Your task to perform on an android device: read, delete, or share a saved page in the chrome app Image 0: 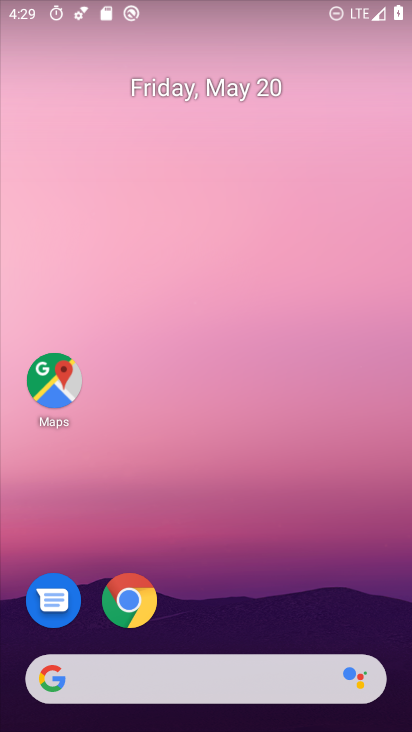
Step 0: click (129, 596)
Your task to perform on an android device: read, delete, or share a saved page in the chrome app Image 1: 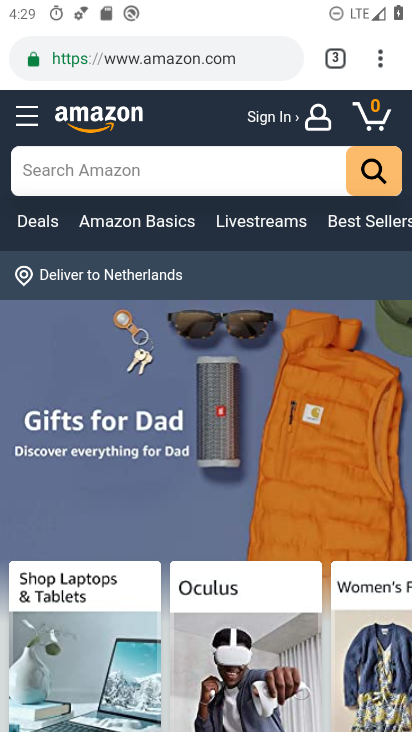
Step 1: drag from (380, 59) to (186, 385)
Your task to perform on an android device: read, delete, or share a saved page in the chrome app Image 2: 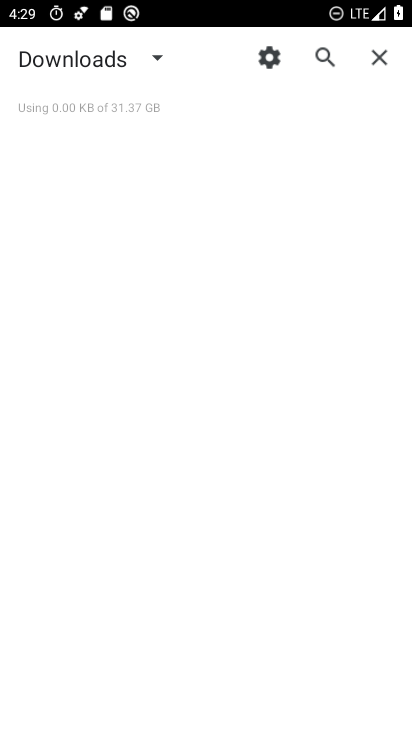
Step 2: click (146, 53)
Your task to perform on an android device: read, delete, or share a saved page in the chrome app Image 3: 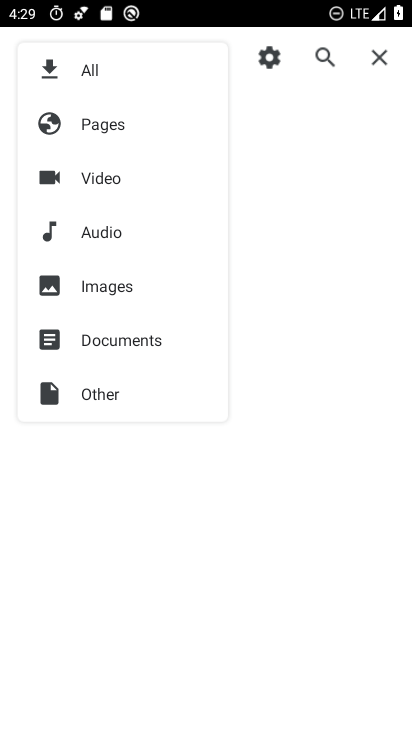
Step 3: click (131, 121)
Your task to perform on an android device: read, delete, or share a saved page in the chrome app Image 4: 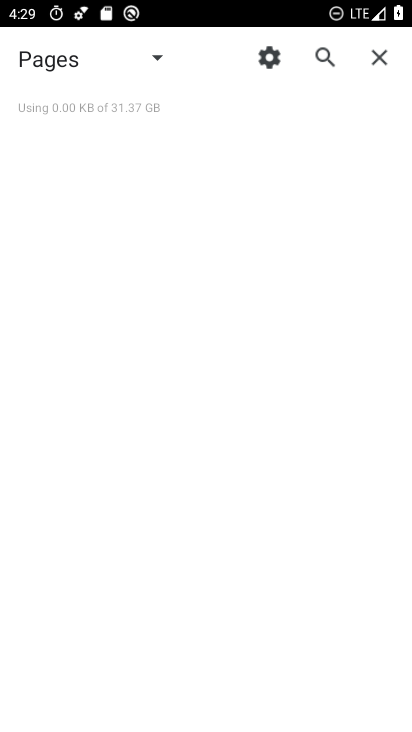
Step 4: task complete